Your task to perform on an android device: Go to location settings Image 0: 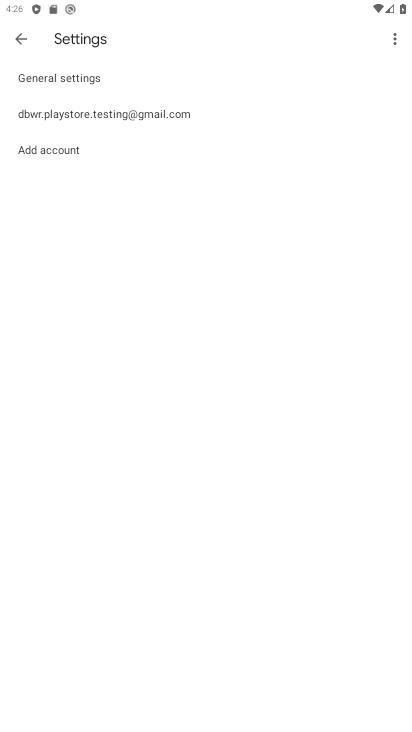
Step 0: press home button
Your task to perform on an android device: Go to location settings Image 1: 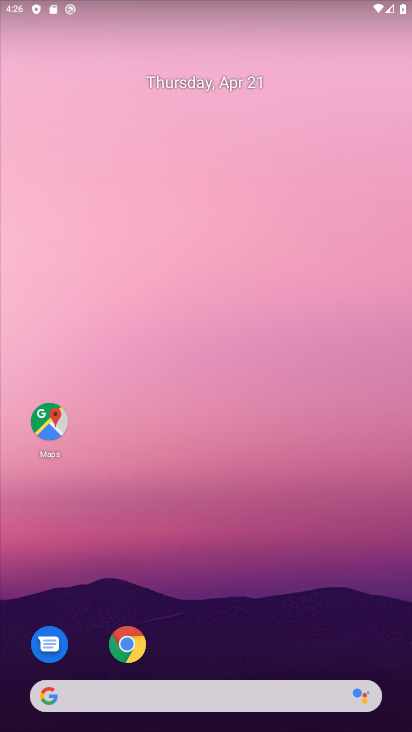
Step 1: drag from (215, 724) to (215, 282)
Your task to perform on an android device: Go to location settings Image 2: 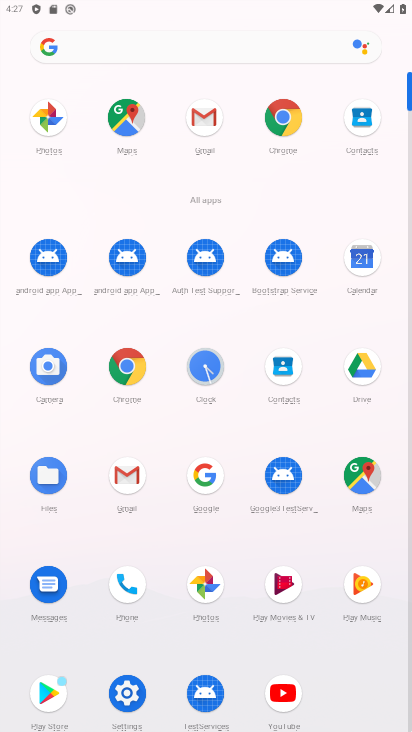
Step 2: click (126, 688)
Your task to perform on an android device: Go to location settings Image 3: 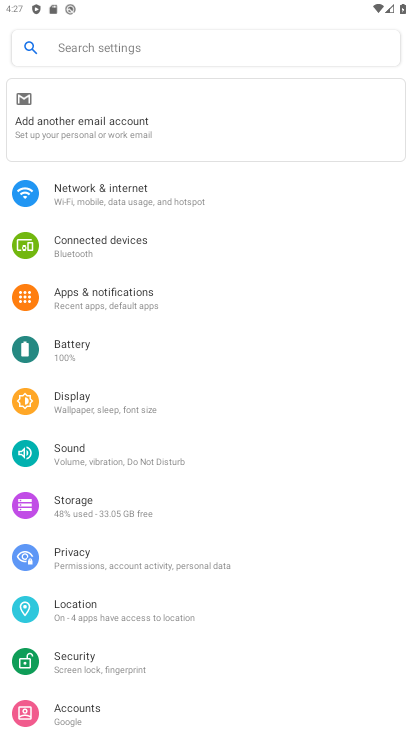
Step 3: click (84, 609)
Your task to perform on an android device: Go to location settings Image 4: 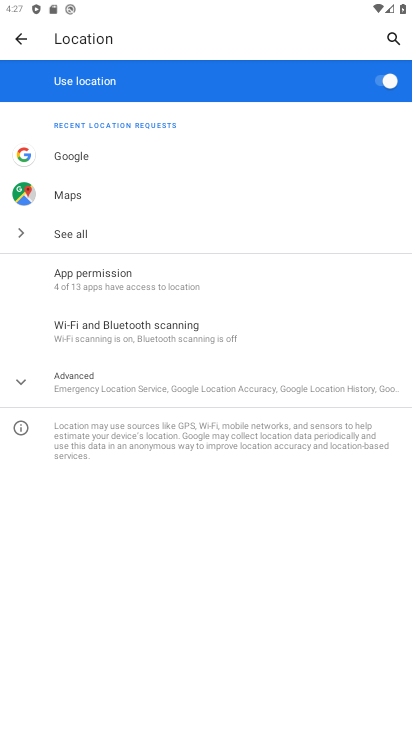
Step 4: click (81, 378)
Your task to perform on an android device: Go to location settings Image 5: 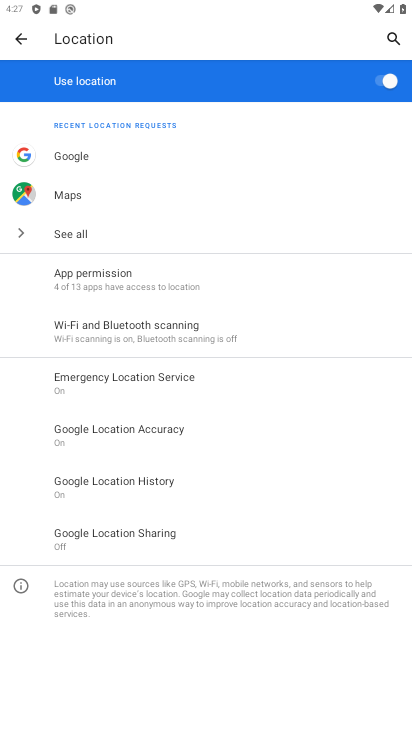
Step 5: task complete